Your task to perform on an android device: open app "Expedia: Hotels, Flights & Car" (install if not already installed) Image 0: 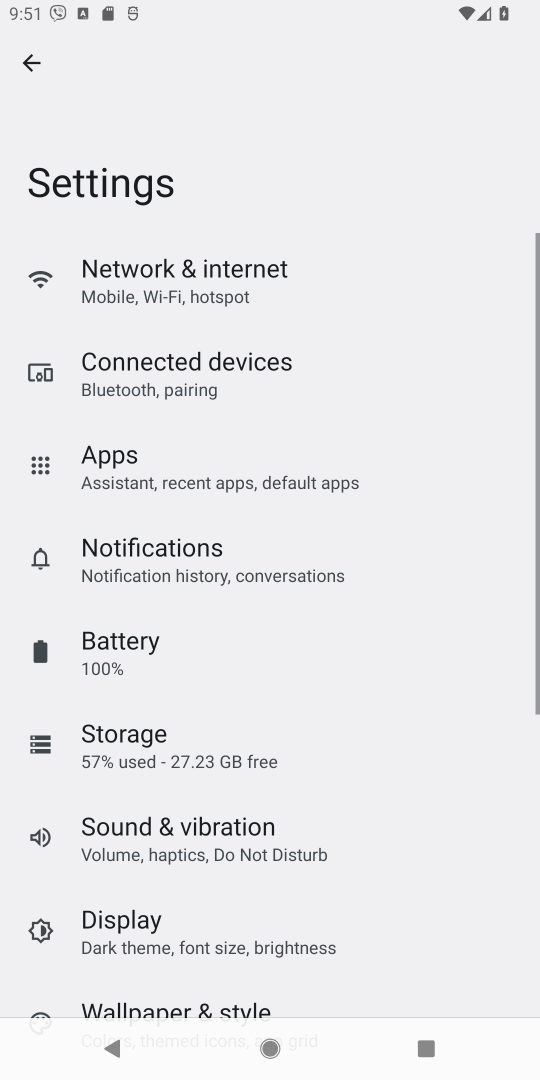
Step 0: press home button
Your task to perform on an android device: open app "Expedia: Hotels, Flights & Car" (install if not already installed) Image 1: 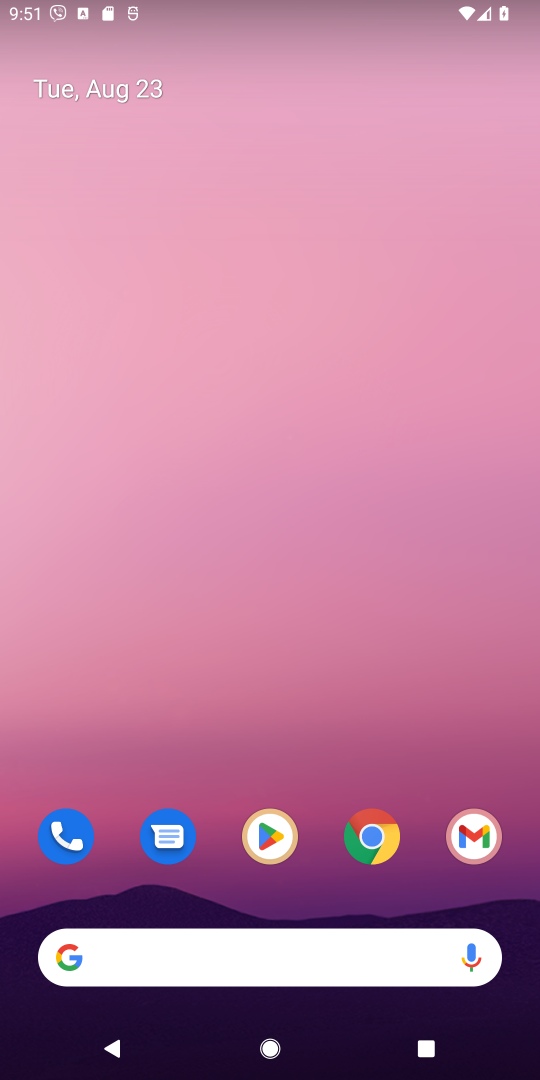
Step 1: click (255, 836)
Your task to perform on an android device: open app "Expedia: Hotels, Flights & Car" (install if not already installed) Image 2: 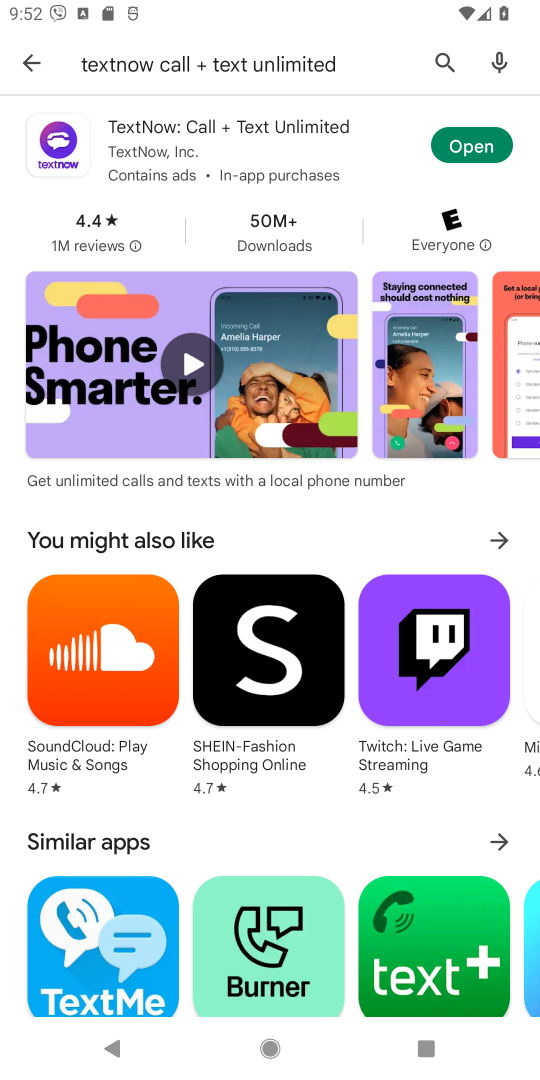
Step 2: click (440, 58)
Your task to perform on an android device: open app "Expedia: Hotels, Flights & Car" (install if not already installed) Image 3: 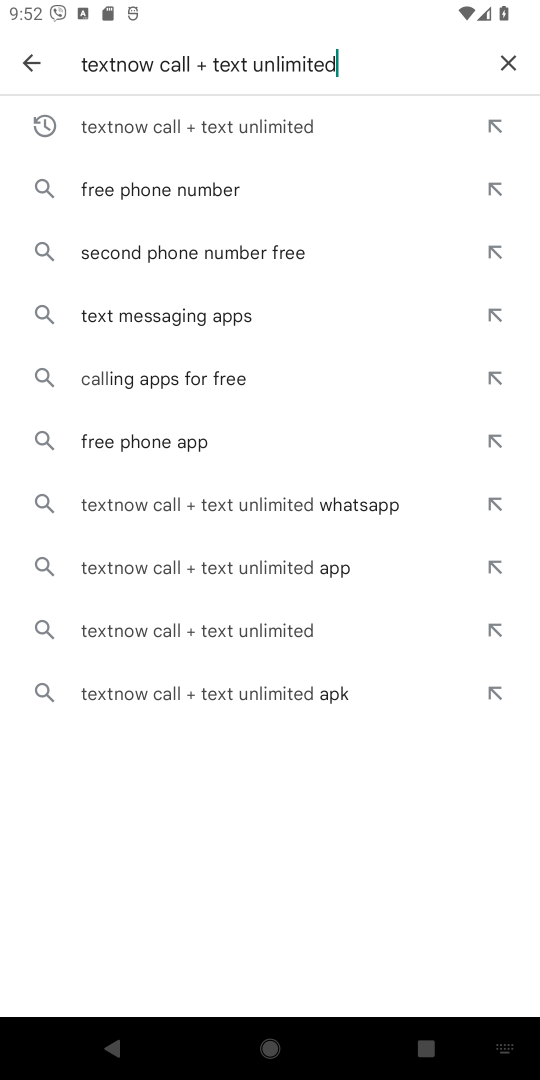
Step 3: click (504, 59)
Your task to perform on an android device: open app "Expedia: Hotels, Flights & Car" (install if not already installed) Image 4: 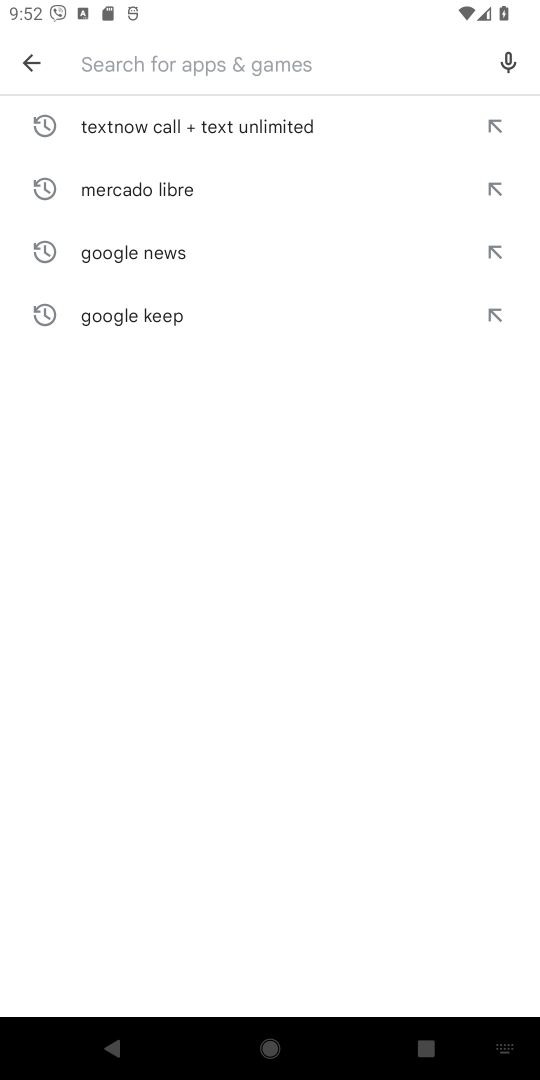
Step 4: type "Expedia: Hotels, Flights & Car"
Your task to perform on an android device: open app "Expedia: Hotels, Flights & Car" (install if not already installed) Image 5: 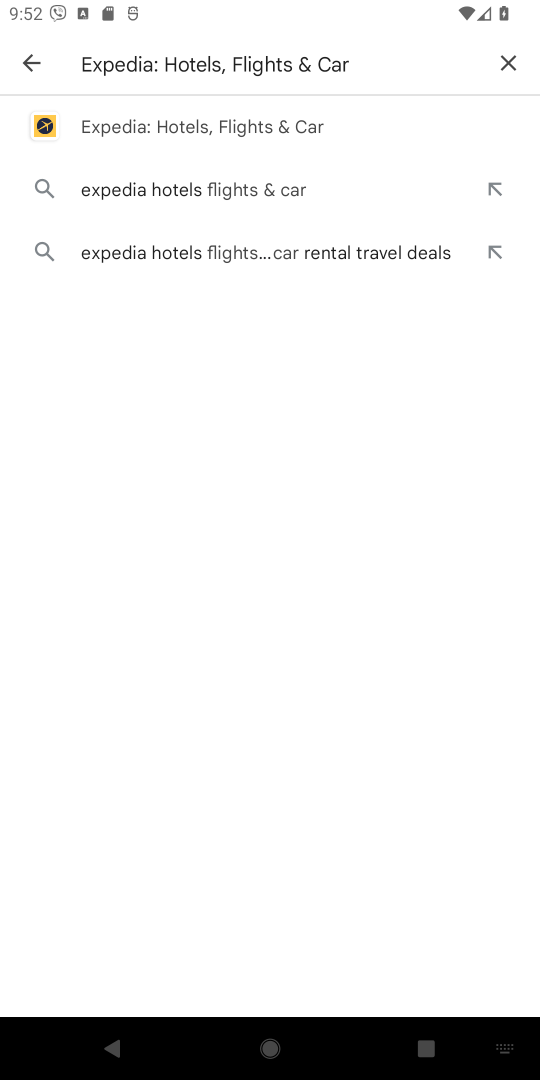
Step 5: click (306, 122)
Your task to perform on an android device: open app "Expedia: Hotels, Flights & Car" (install if not already installed) Image 6: 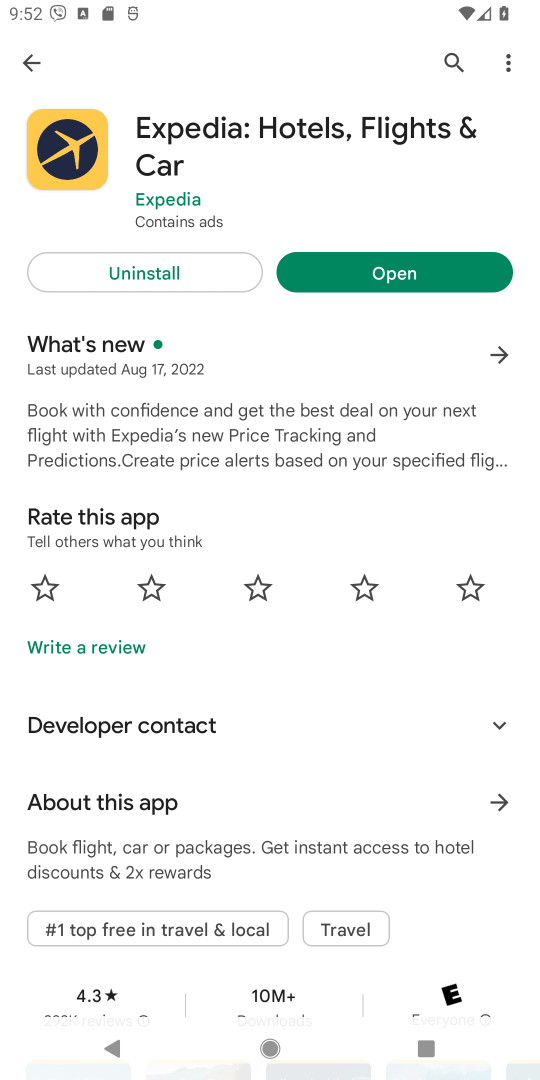
Step 6: click (399, 272)
Your task to perform on an android device: open app "Expedia: Hotels, Flights & Car" (install if not already installed) Image 7: 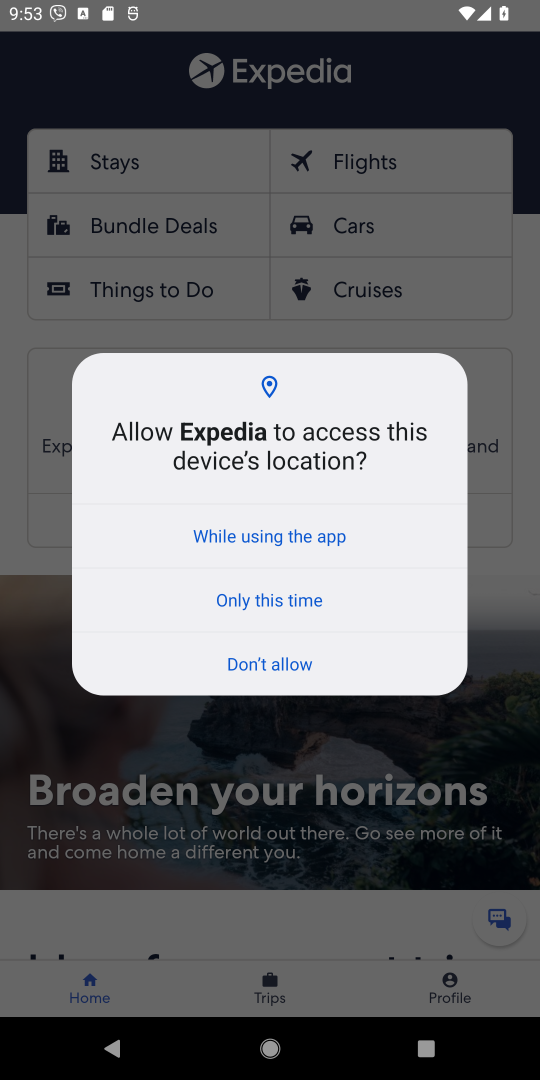
Step 7: click (257, 610)
Your task to perform on an android device: open app "Expedia: Hotels, Flights & Car" (install if not already installed) Image 8: 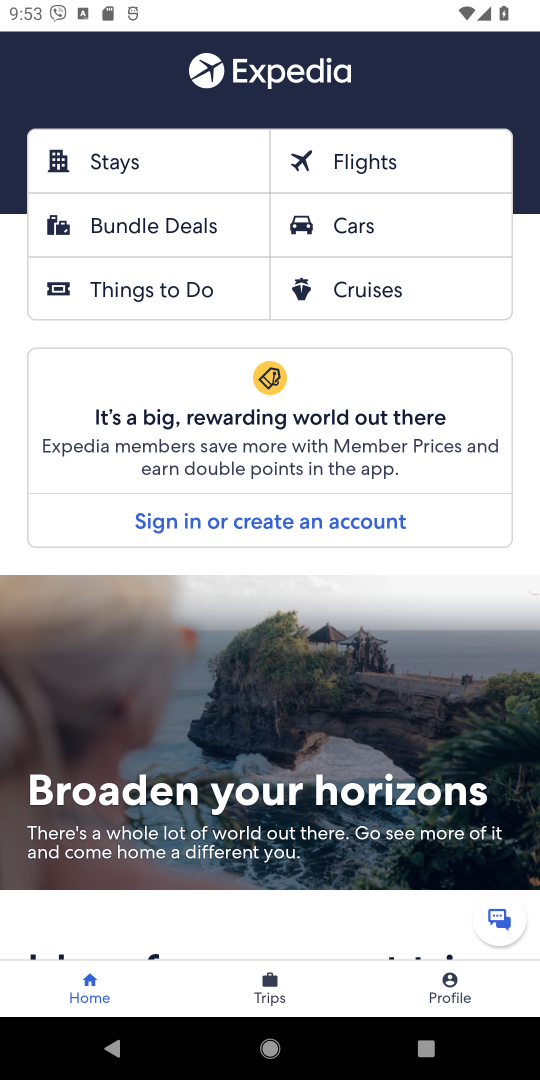
Step 8: task complete